Your task to perform on an android device: change your default location settings in chrome Image 0: 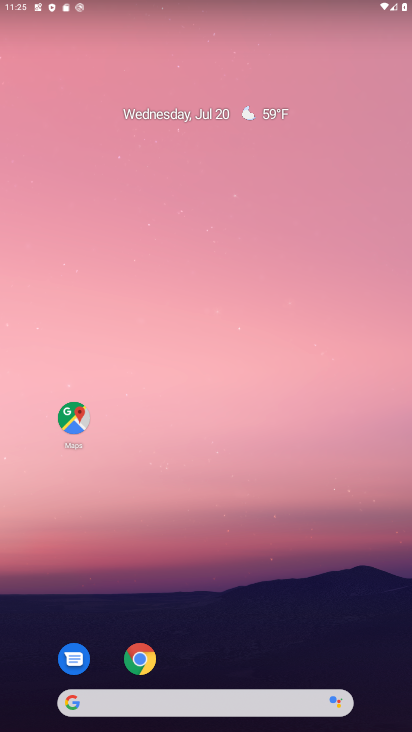
Step 0: drag from (206, 727) to (208, 159)
Your task to perform on an android device: change your default location settings in chrome Image 1: 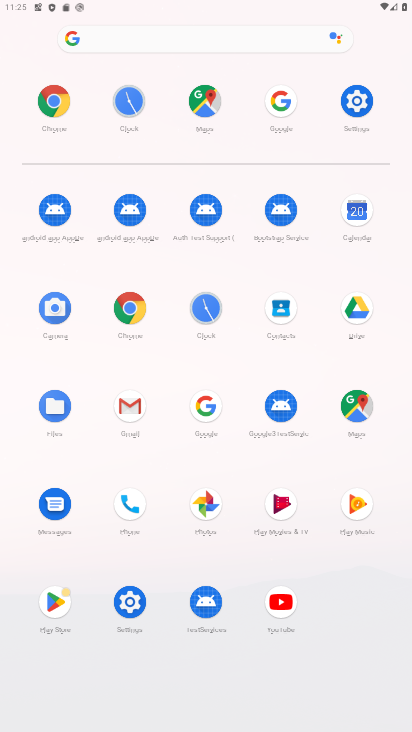
Step 1: click (132, 311)
Your task to perform on an android device: change your default location settings in chrome Image 2: 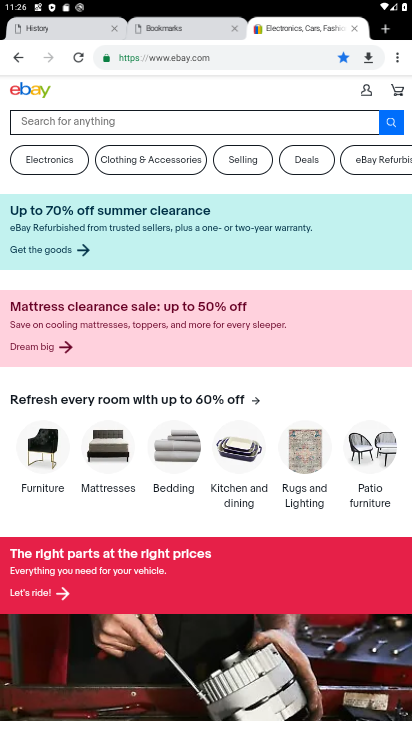
Step 2: click (397, 59)
Your task to perform on an android device: change your default location settings in chrome Image 3: 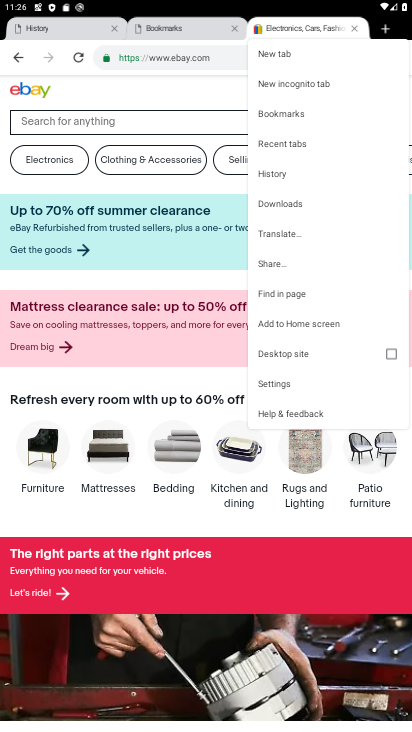
Step 3: click (273, 378)
Your task to perform on an android device: change your default location settings in chrome Image 4: 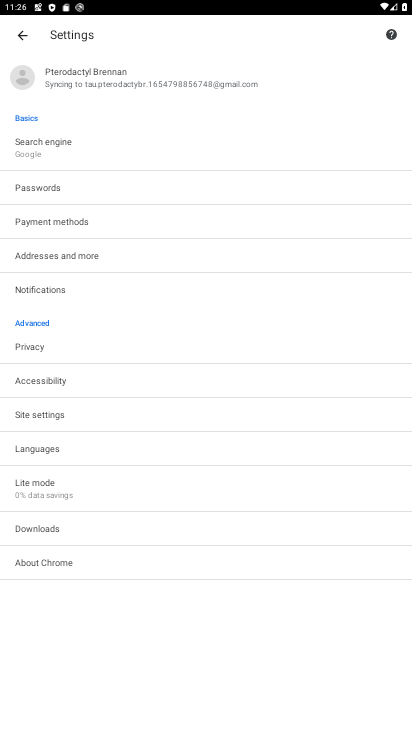
Step 4: click (50, 417)
Your task to perform on an android device: change your default location settings in chrome Image 5: 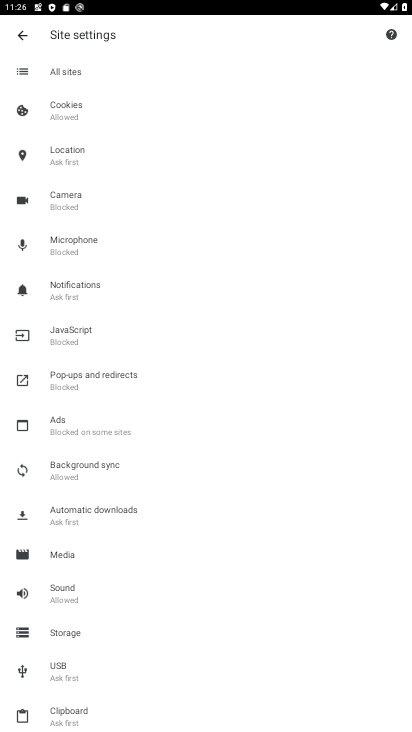
Step 5: click (70, 160)
Your task to perform on an android device: change your default location settings in chrome Image 6: 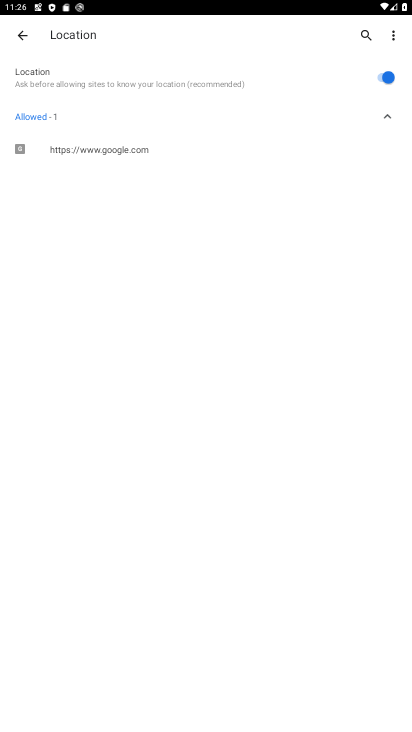
Step 6: click (391, 71)
Your task to perform on an android device: change your default location settings in chrome Image 7: 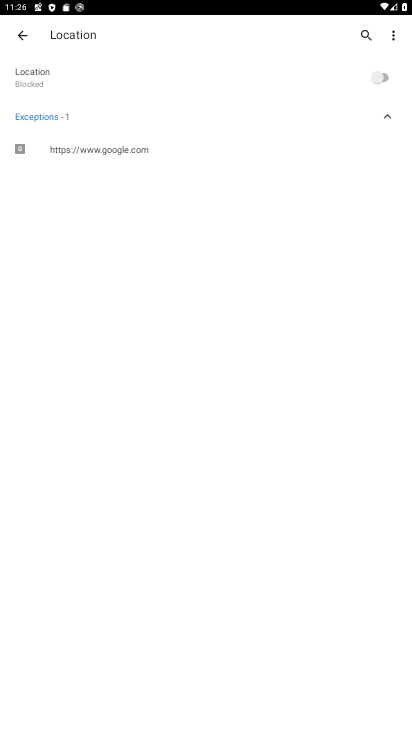
Step 7: task complete